Your task to perform on an android device: delete browsing data in the chrome app Image 0: 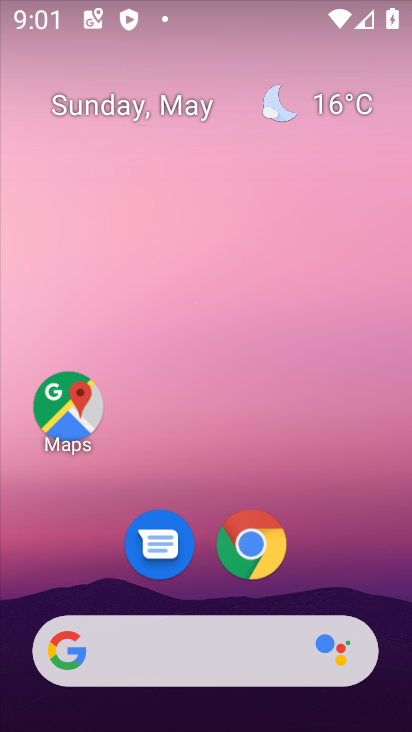
Step 0: click (237, 559)
Your task to perform on an android device: delete browsing data in the chrome app Image 1: 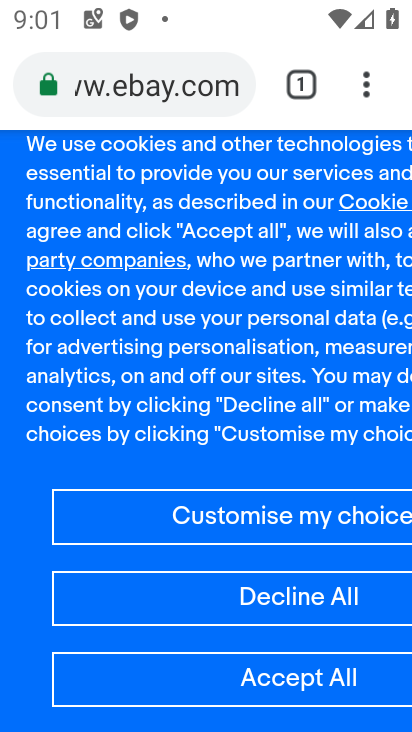
Step 1: click (372, 74)
Your task to perform on an android device: delete browsing data in the chrome app Image 2: 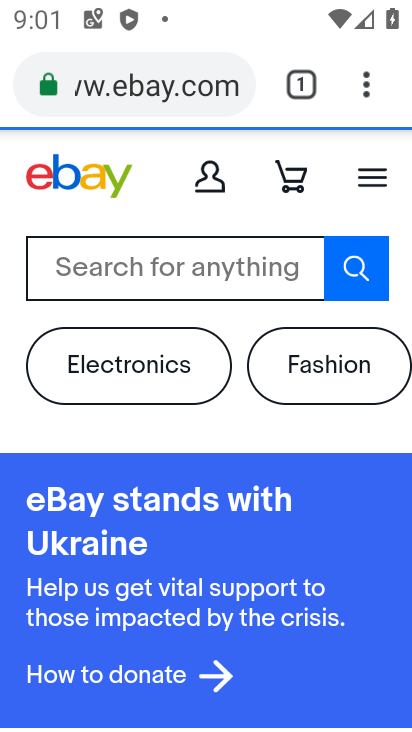
Step 2: click (368, 83)
Your task to perform on an android device: delete browsing data in the chrome app Image 3: 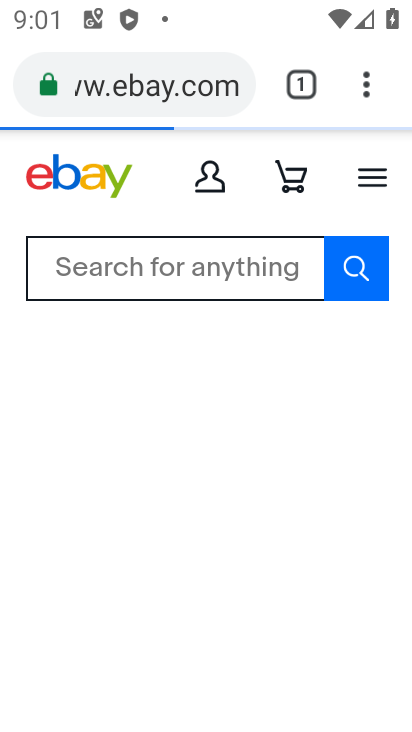
Step 3: click (368, 102)
Your task to perform on an android device: delete browsing data in the chrome app Image 4: 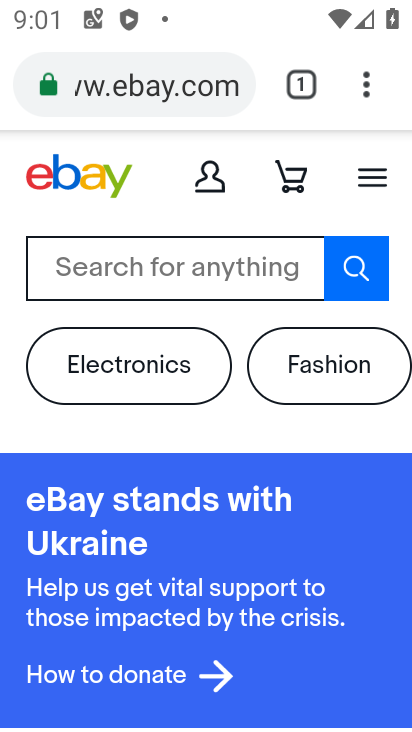
Step 4: click (366, 89)
Your task to perform on an android device: delete browsing data in the chrome app Image 5: 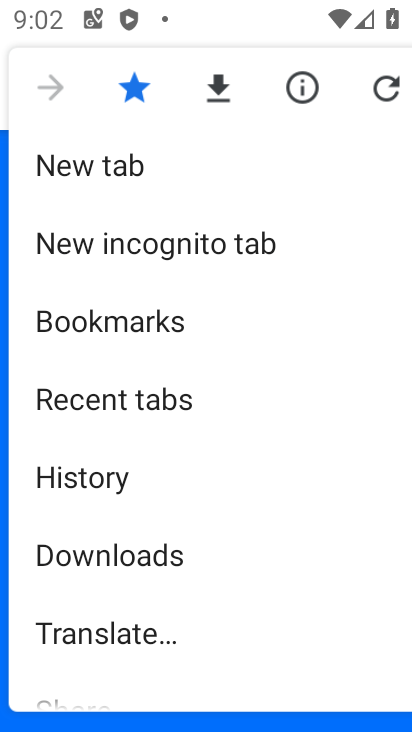
Step 5: drag from (167, 583) to (167, 370)
Your task to perform on an android device: delete browsing data in the chrome app Image 6: 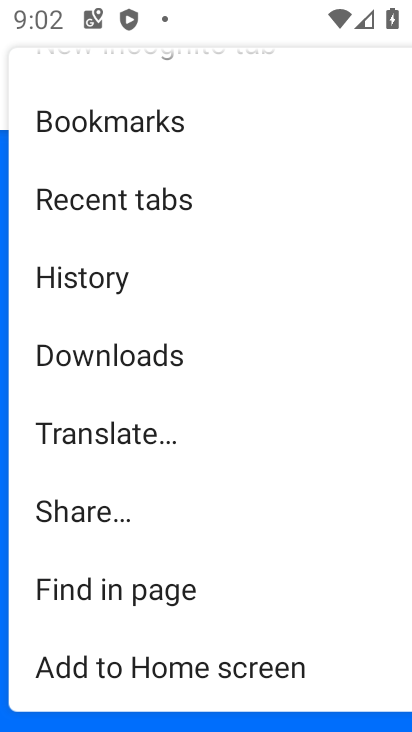
Step 6: click (110, 286)
Your task to perform on an android device: delete browsing data in the chrome app Image 7: 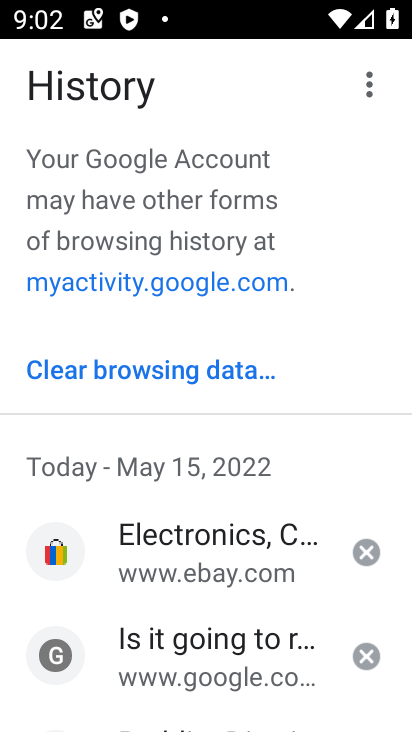
Step 7: click (171, 368)
Your task to perform on an android device: delete browsing data in the chrome app Image 8: 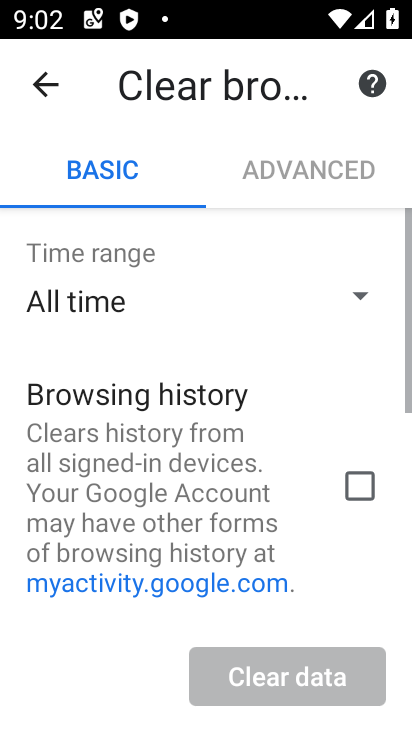
Step 8: click (366, 488)
Your task to perform on an android device: delete browsing data in the chrome app Image 9: 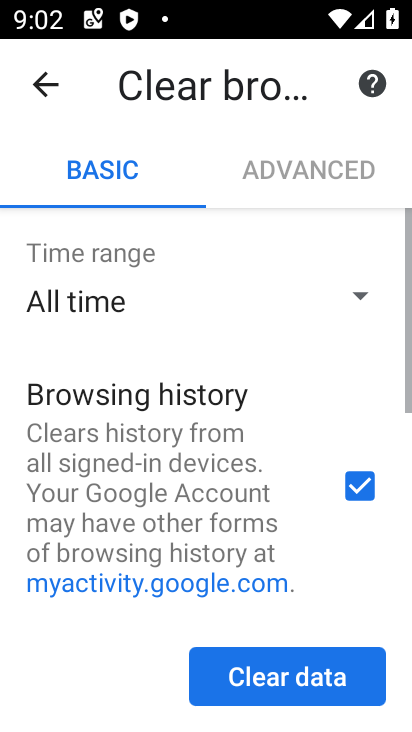
Step 9: drag from (293, 448) to (284, 717)
Your task to perform on an android device: delete browsing data in the chrome app Image 10: 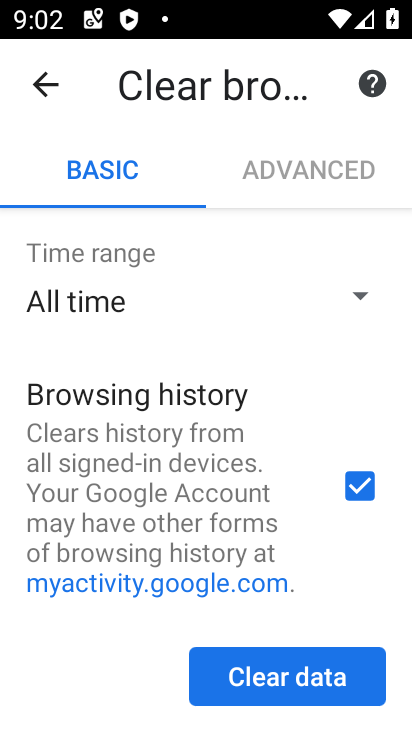
Step 10: drag from (199, 558) to (165, 232)
Your task to perform on an android device: delete browsing data in the chrome app Image 11: 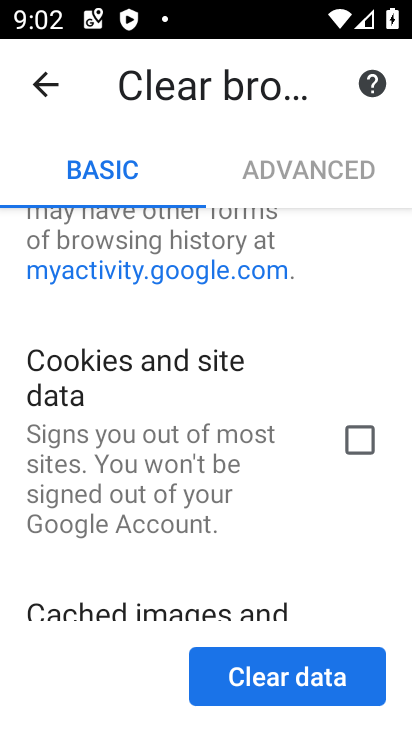
Step 11: drag from (187, 316) to (279, 690)
Your task to perform on an android device: delete browsing data in the chrome app Image 12: 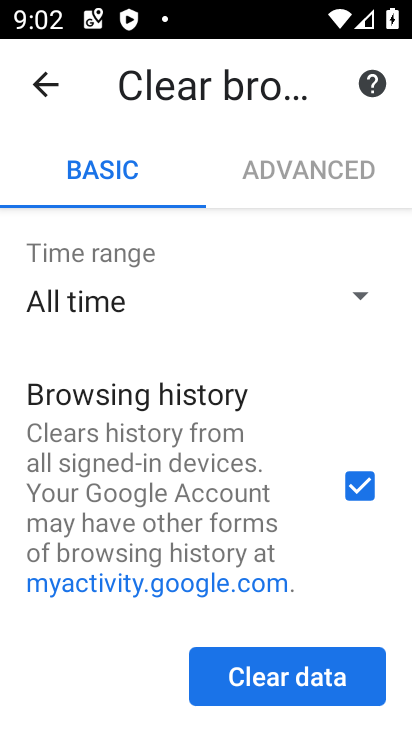
Step 12: click (319, 693)
Your task to perform on an android device: delete browsing data in the chrome app Image 13: 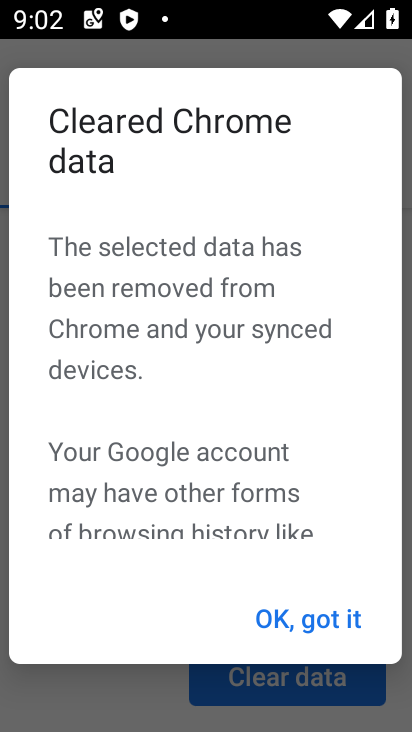
Step 13: click (343, 628)
Your task to perform on an android device: delete browsing data in the chrome app Image 14: 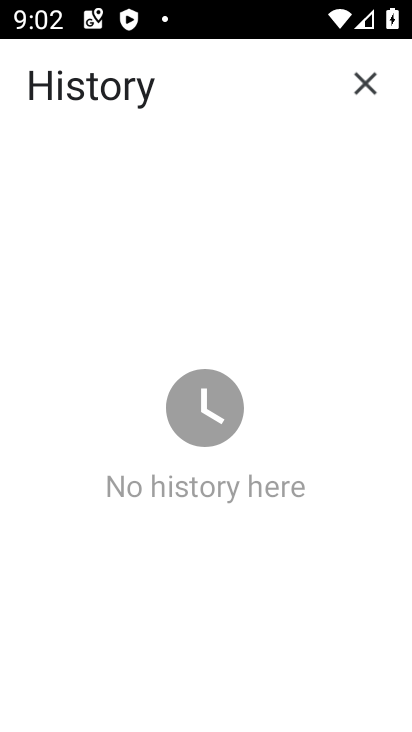
Step 14: task complete